Your task to perform on an android device: delete a single message in the gmail app Image 0: 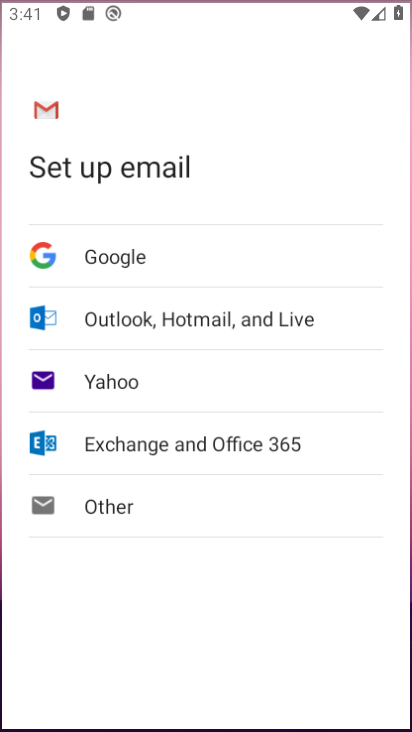
Step 0: drag from (226, 592) to (411, 458)
Your task to perform on an android device: delete a single message in the gmail app Image 1: 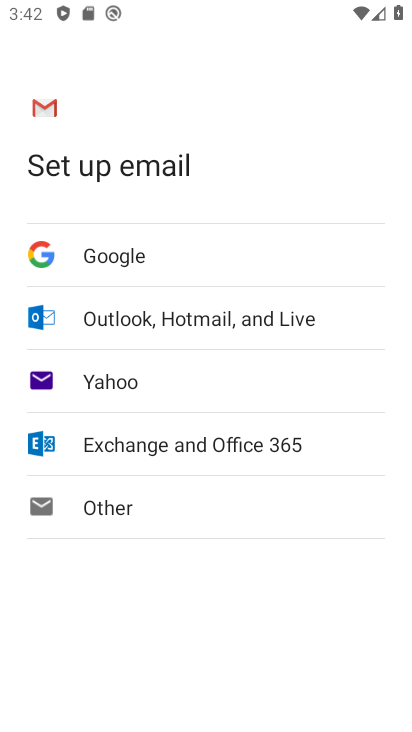
Step 1: press back button
Your task to perform on an android device: delete a single message in the gmail app Image 2: 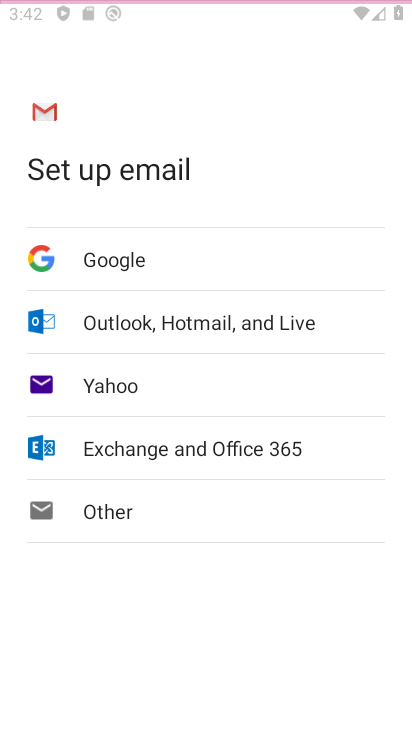
Step 2: click (411, 458)
Your task to perform on an android device: delete a single message in the gmail app Image 3: 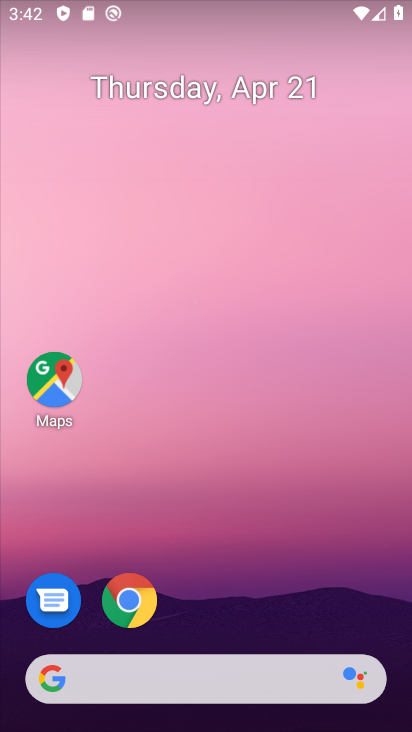
Step 3: drag from (191, 619) to (372, 127)
Your task to perform on an android device: delete a single message in the gmail app Image 4: 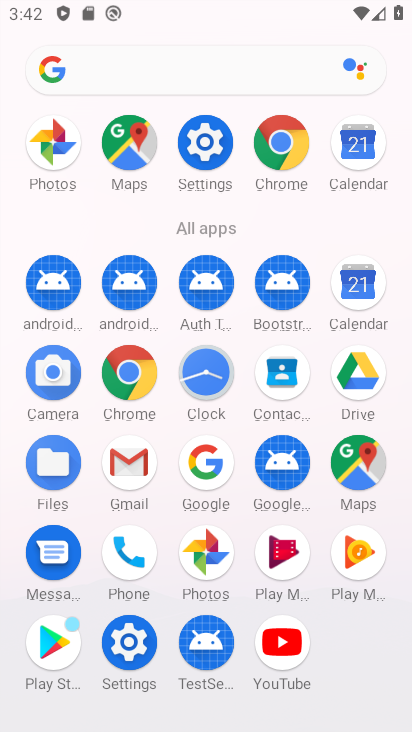
Step 4: click (144, 473)
Your task to perform on an android device: delete a single message in the gmail app Image 5: 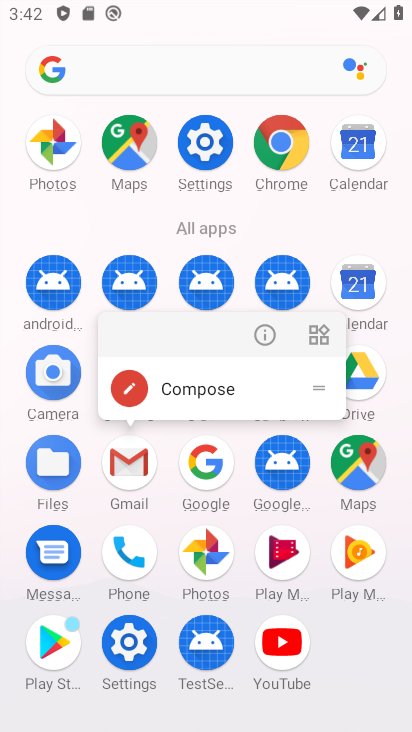
Step 5: click (131, 461)
Your task to perform on an android device: delete a single message in the gmail app Image 6: 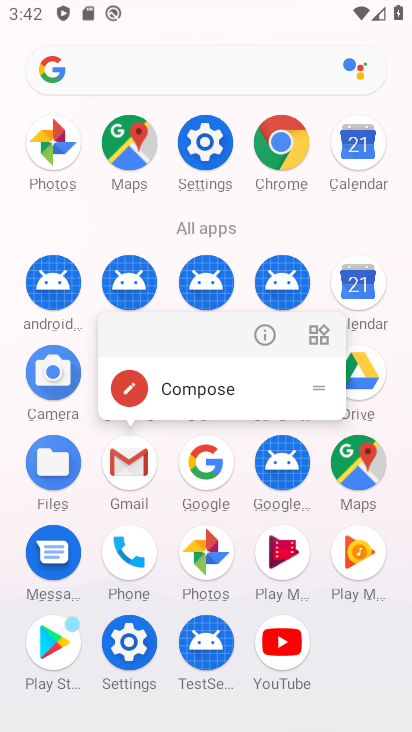
Step 6: click (131, 457)
Your task to perform on an android device: delete a single message in the gmail app Image 7: 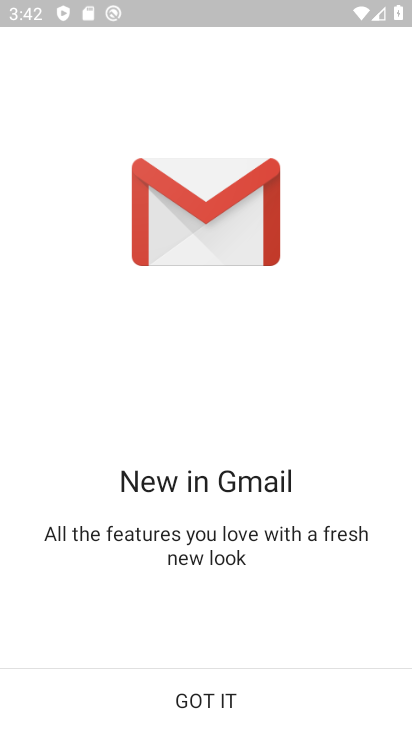
Step 7: click (209, 698)
Your task to perform on an android device: delete a single message in the gmail app Image 8: 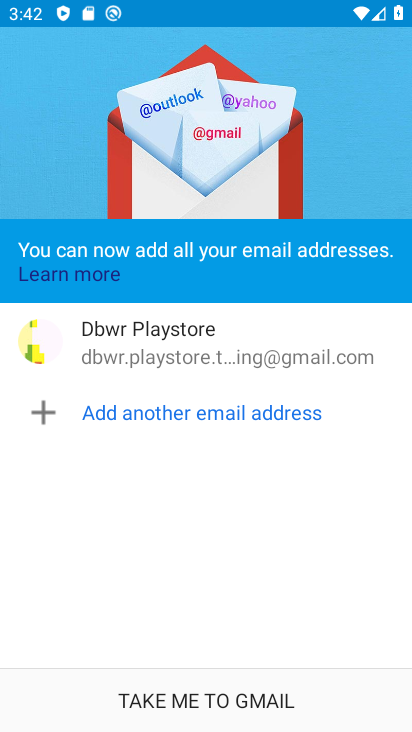
Step 8: click (254, 697)
Your task to perform on an android device: delete a single message in the gmail app Image 9: 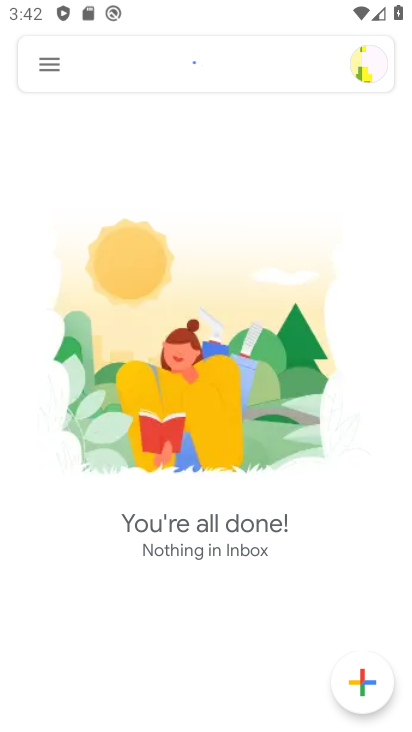
Step 9: click (52, 65)
Your task to perform on an android device: delete a single message in the gmail app Image 10: 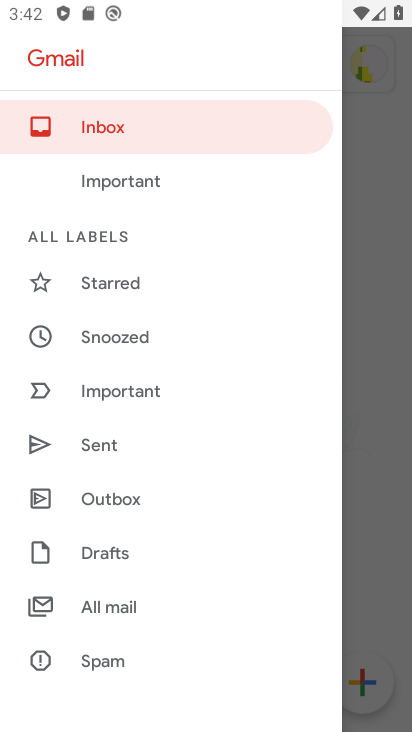
Step 10: click (148, 618)
Your task to perform on an android device: delete a single message in the gmail app Image 11: 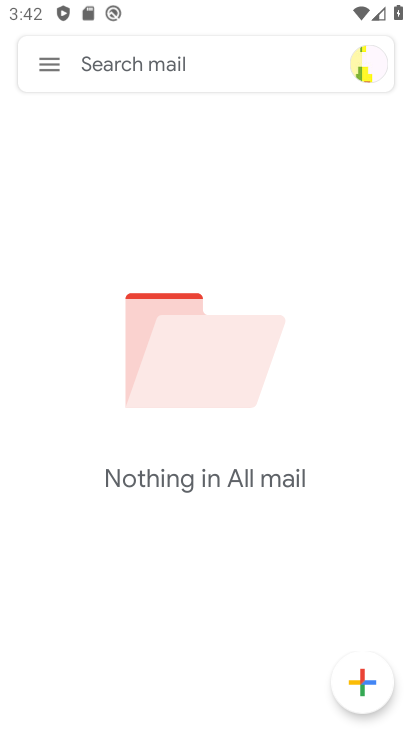
Step 11: task complete